Your task to perform on an android device: turn notification dots on Image 0: 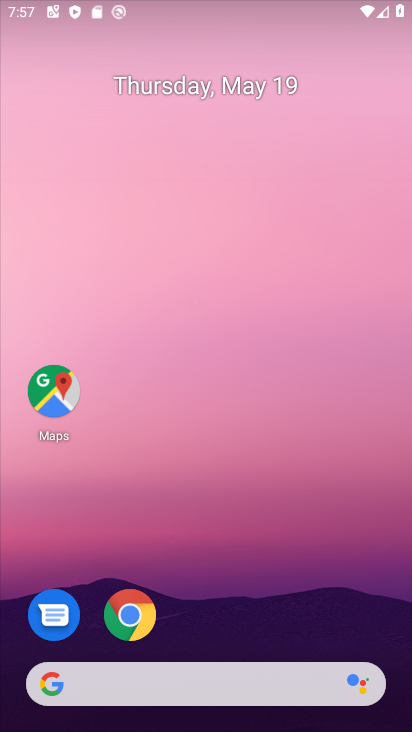
Step 0: drag from (253, 231) to (266, 154)
Your task to perform on an android device: turn notification dots on Image 1: 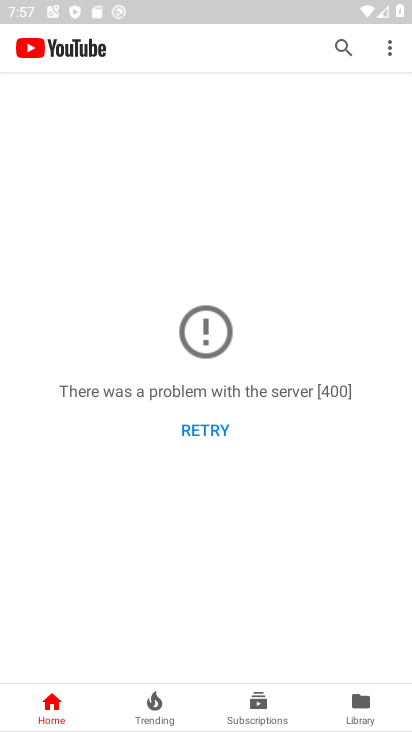
Step 1: press home button
Your task to perform on an android device: turn notification dots on Image 2: 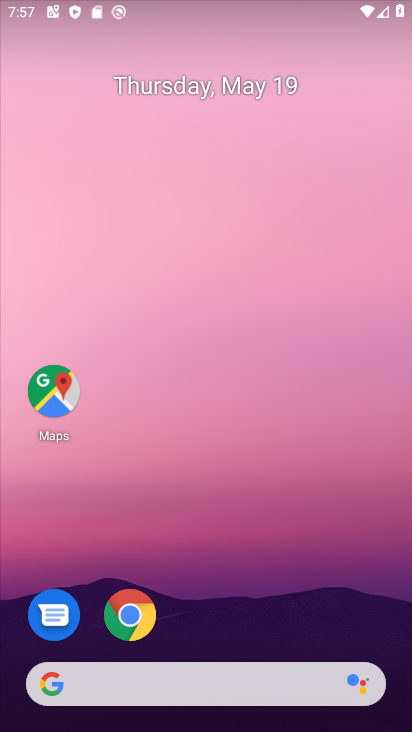
Step 2: drag from (221, 671) to (358, 119)
Your task to perform on an android device: turn notification dots on Image 3: 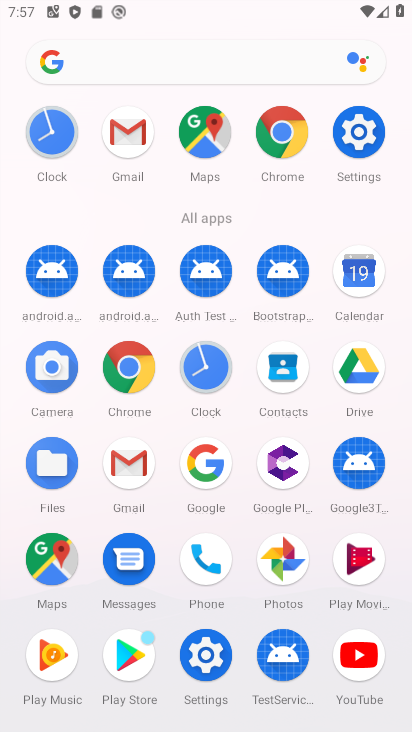
Step 3: click (358, 148)
Your task to perform on an android device: turn notification dots on Image 4: 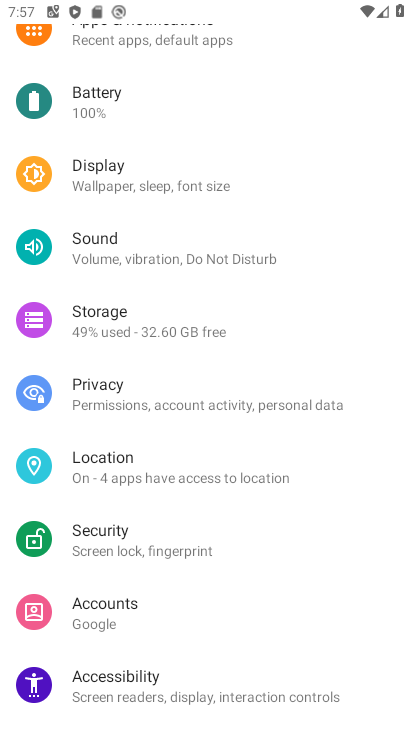
Step 4: drag from (195, 326) to (186, 637)
Your task to perform on an android device: turn notification dots on Image 5: 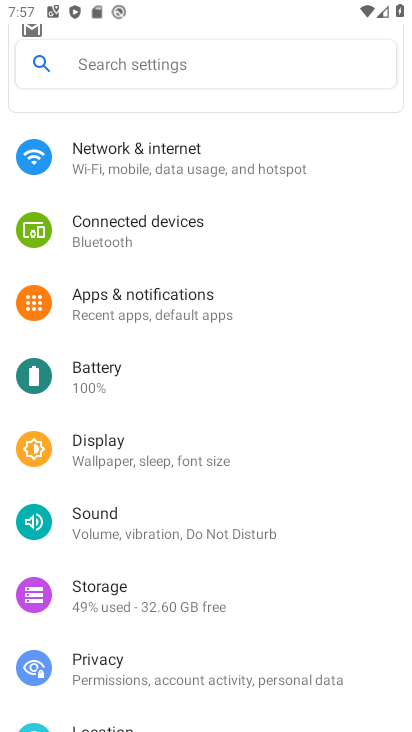
Step 5: click (197, 315)
Your task to perform on an android device: turn notification dots on Image 6: 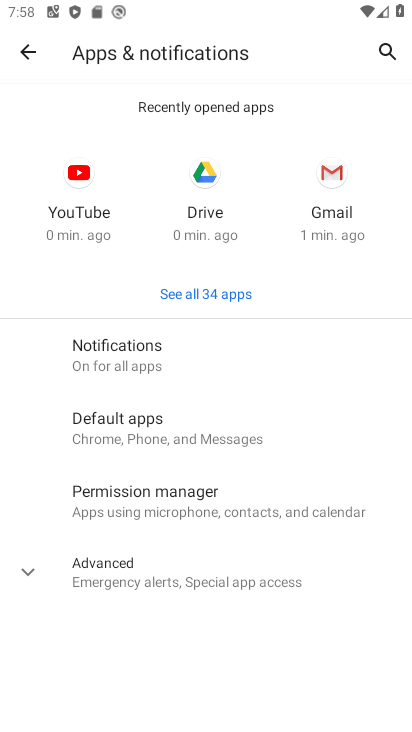
Step 6: click (174, 351)
Your task to perform on an android device: turn notification dots on Image 7: 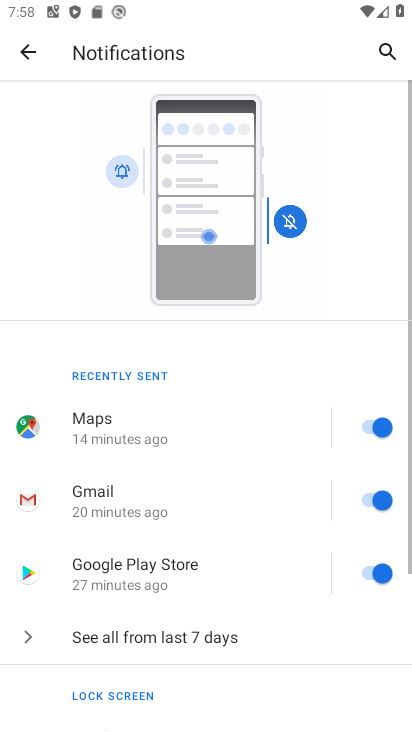
Step 7: drag from (146, 574) to (169, 246)
Your task to perform on an android device: turn notification dots on Image 8: 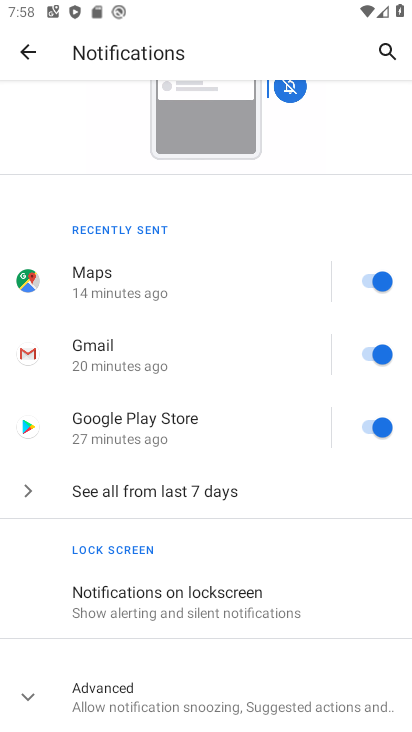
Step 8: click (188, 693)
Your task to perform on an android device: turn notification dots on Image 9: 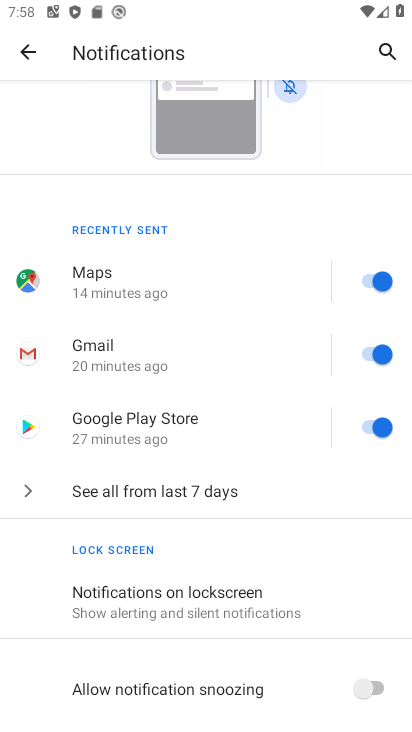
Step 9: task complete